Your task to perform on an android device: turn off picture-in-picture Image 0: 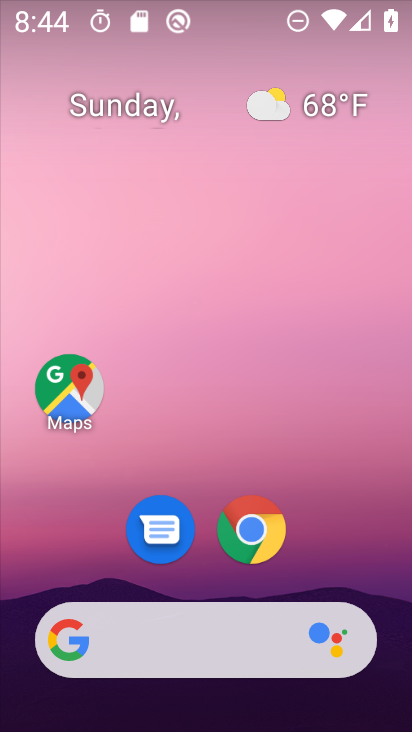
Step 0: press home button
Your task to perform on an android device: turn off picture-in-picture Image 1: 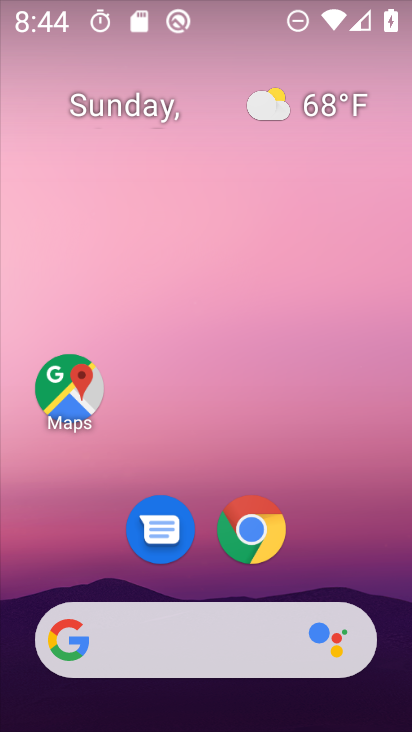
Step 1: click (250, 524)
Your task to perform on an android device: turn off picture-in-picture Image 2: 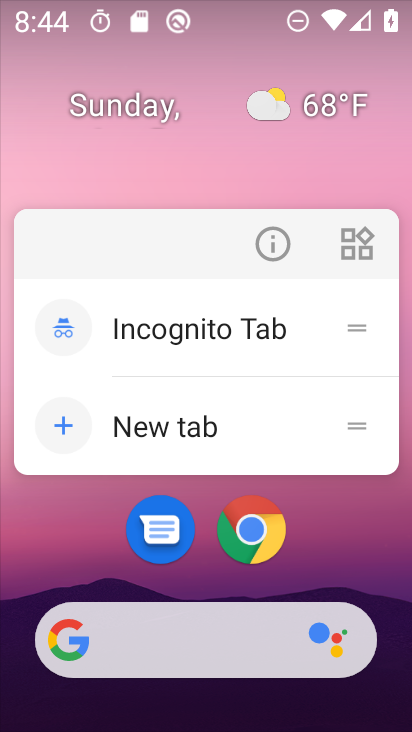
Step 2: click (273, 247)
Your task to perform on an android device: turn off picture-in-picture Image 3: 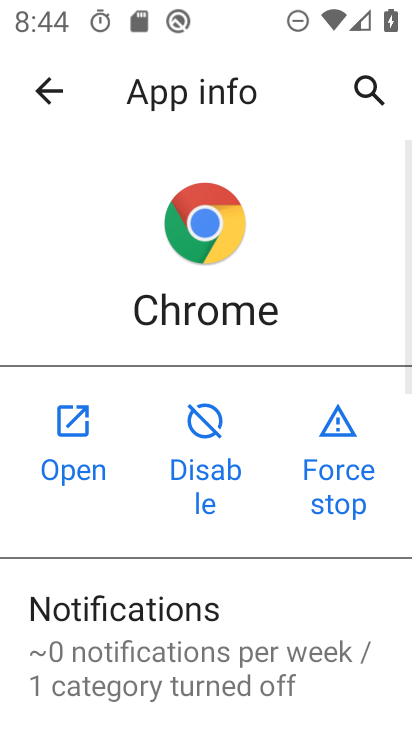
Step 3: drag from (245, 621) to (309, 75)
Your task to perform on an android device: turn off picture-in-picture Image 4: 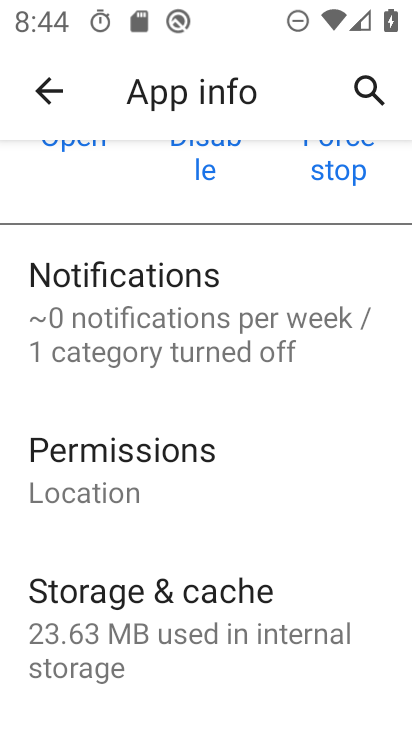
Step 4: drag from (211, 684) to (203, 155)
Your task to perform on an android device: turn off picture-in-picture Image 5: 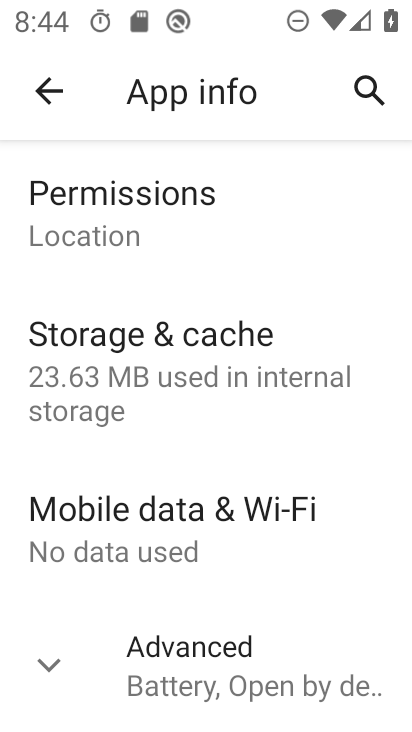
Step 5: click (49, 656)
Your task to perform on an android device: turn off picture-in-picture Image 6: 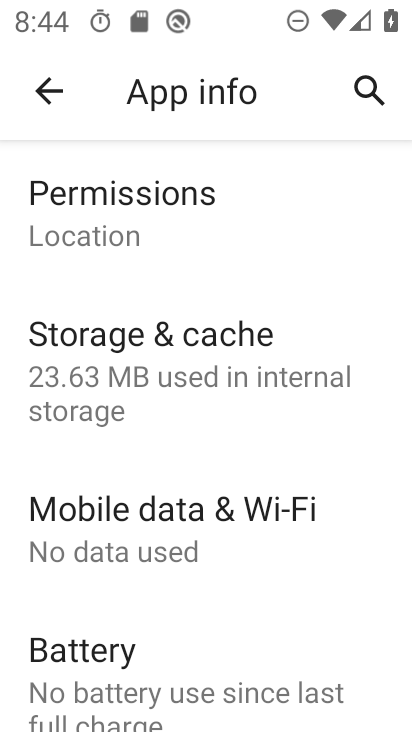
Step 6: drag from (190, 648) to (193, 92)
Your task to perform on an android device: turn off picture-in-picture Image 7: 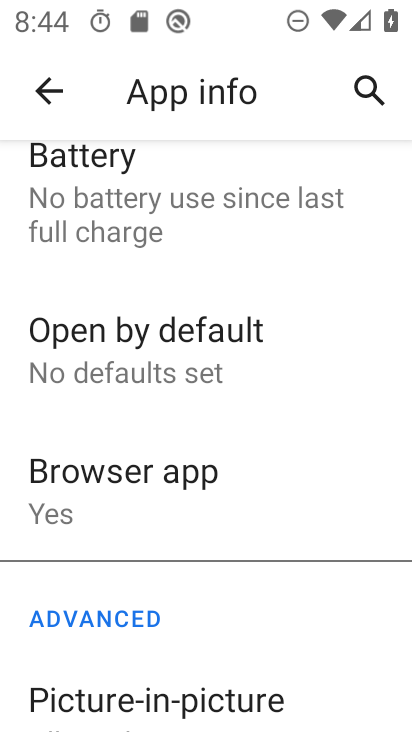
Step 7: click (268, 706)
Your task to perform on an android device: turn off picture-in-picture Image 8: 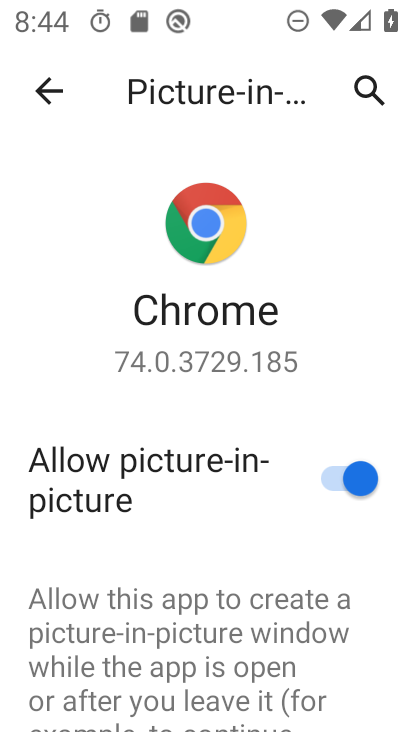
Step 8: click (340, 478)
Your task to perform on an android device: turn off picture-in-picture Image 9: 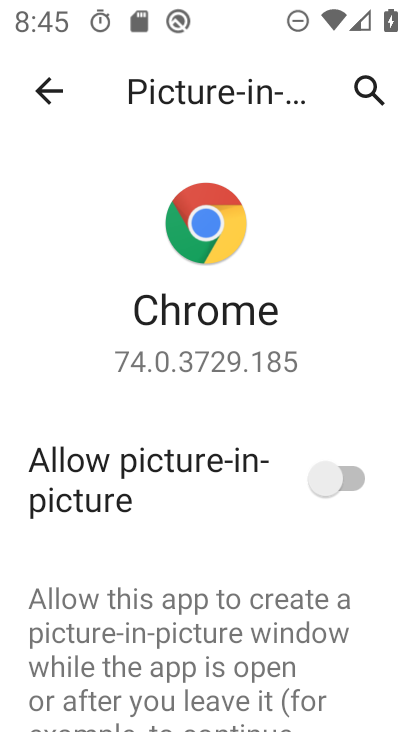
Step 9: task complete